Your task to perform on an android device: Open Google Maps Image 0: 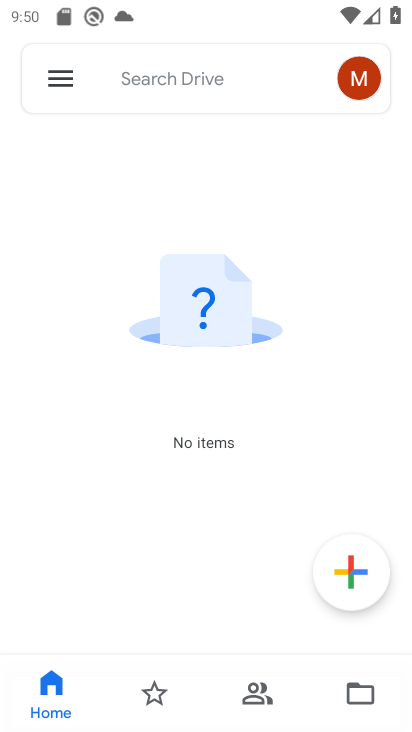
Step 0: press back button
Your task to perform on an android device: Open Google Maps Image 1: 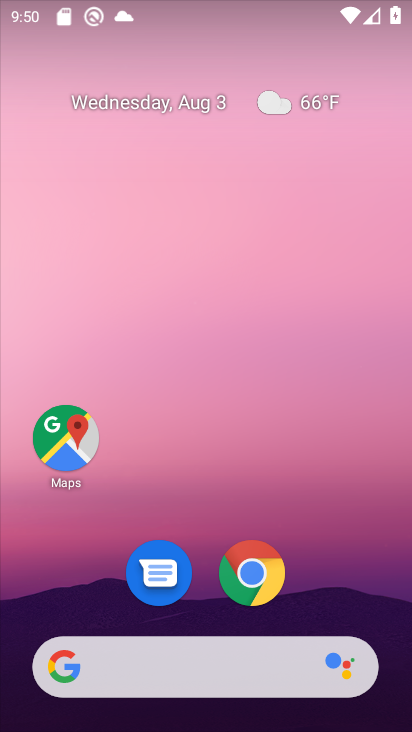
Step 1: click (71, 440)
Your task to perform on an android device: Open Google Maps Image 2: 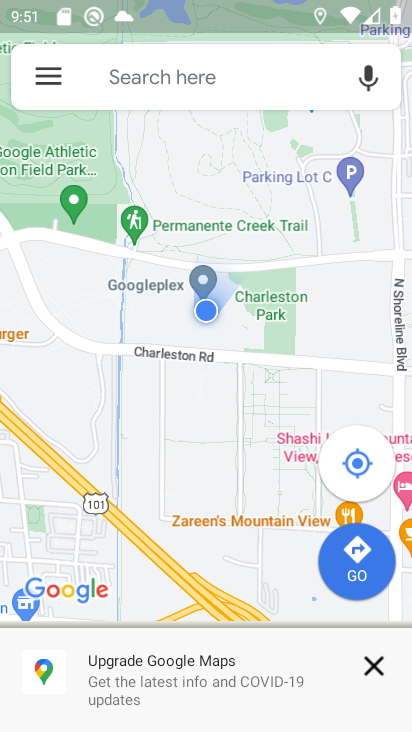
Step 2: task complete